Your task to perform on an android device: Play the last video I watched on Youtube Image 0: 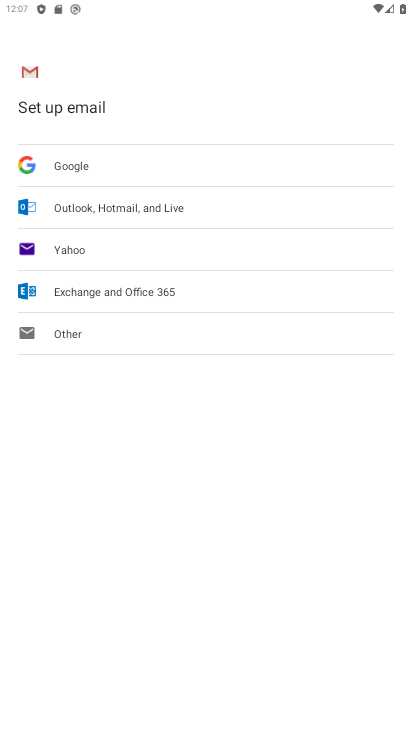
Step 0: press home button
Your task to perform on an android device: Play the last video I watched on Youtube Image 1: 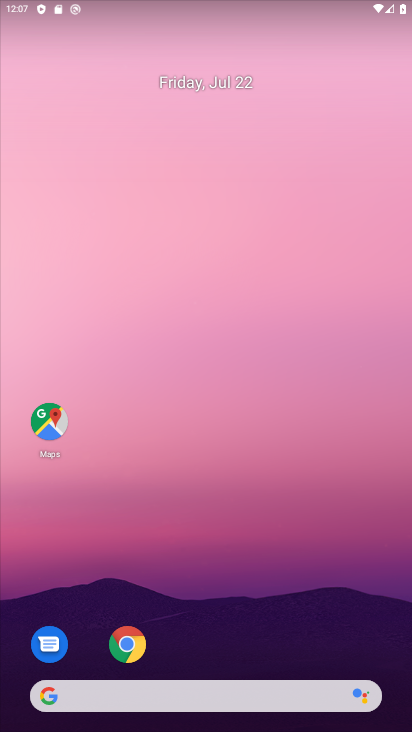
Step 1: drag from (221, 677) to (283, 97)
Your task to perform on an android device: Play the last video I watched on Youtube Image 2: 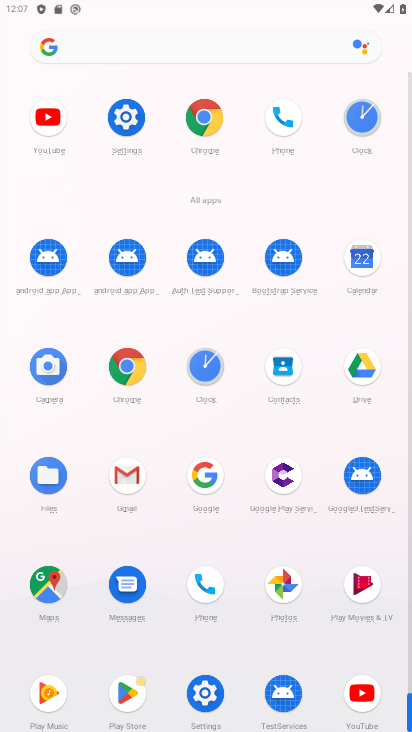
Step 2: click (357, 691)
Your task to perform on an android device: Play the last video I watched on Youtube Image 3: 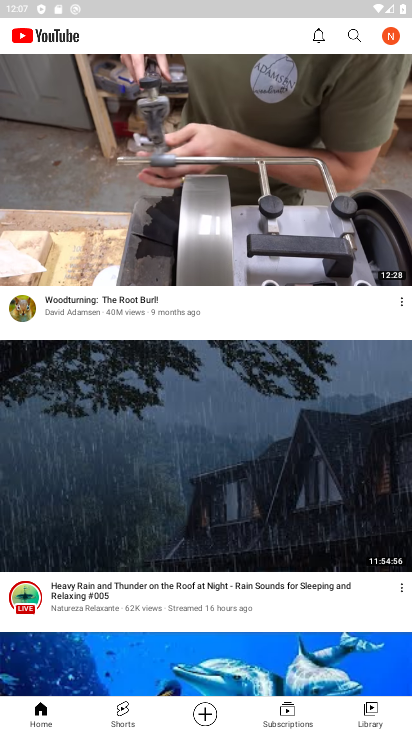
Step 3: click (362, 706)
Your task to perform on an android device: Play the last video I watched on Youtube Image 4: 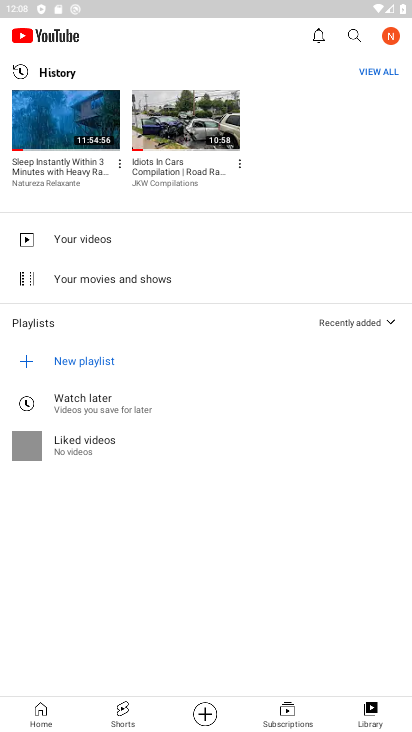
Step 4: click (69, 117)
Your task to perform on an android device: Play the last video I watched on Youtube Image 5: 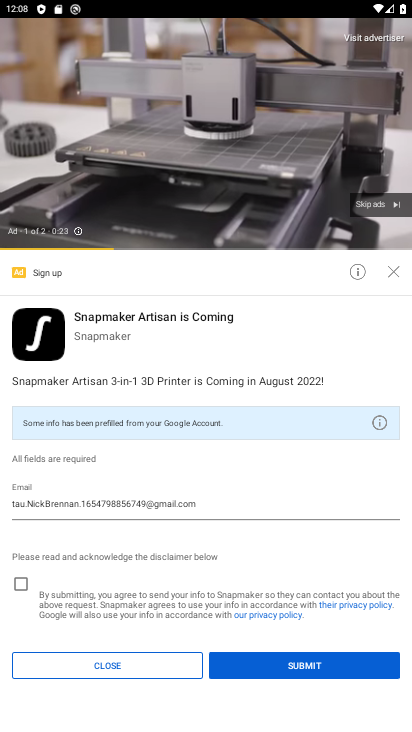
Step 5: task complete